Your task to perform on an android device: star an email in the gmail app Image 0: 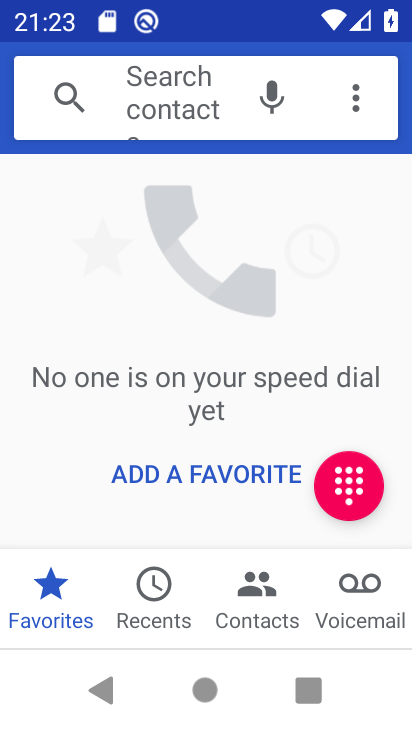
Step 0: press home button
Your task to perform on an android device: star an email in the gmail app Image 1: 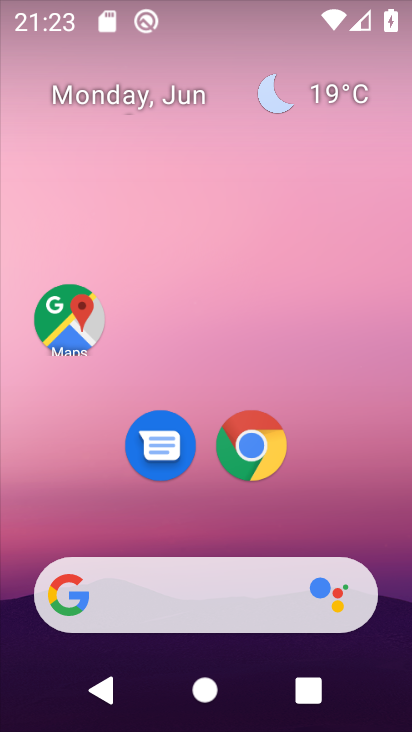
Step 1: drag from (211, 521) to (275, 20)
Your task to perform on an android device: star an email in the gmail app Image 2: 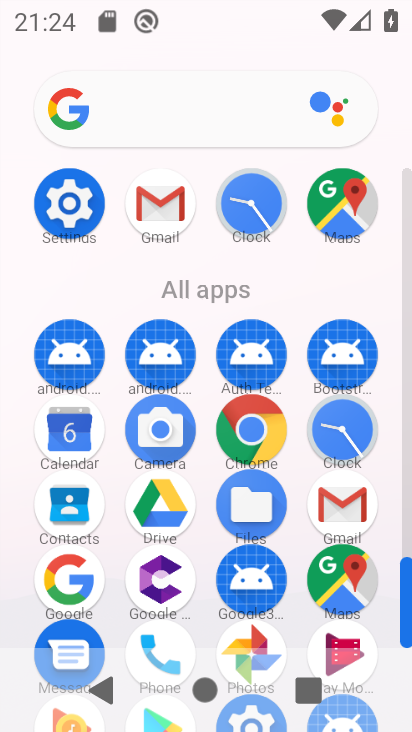
Step 2: click (342, 500)
Your task to perform on an android device: star an email in the gmail app Image 3: 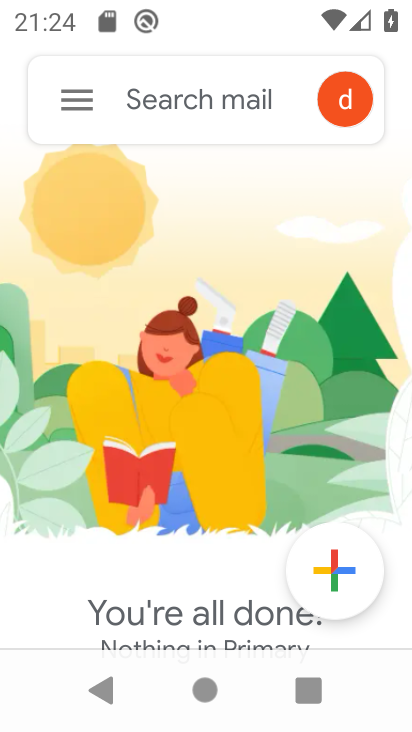
Step 3: task complete